Your task to perform on an android device: When is my next meeting? Image 0: 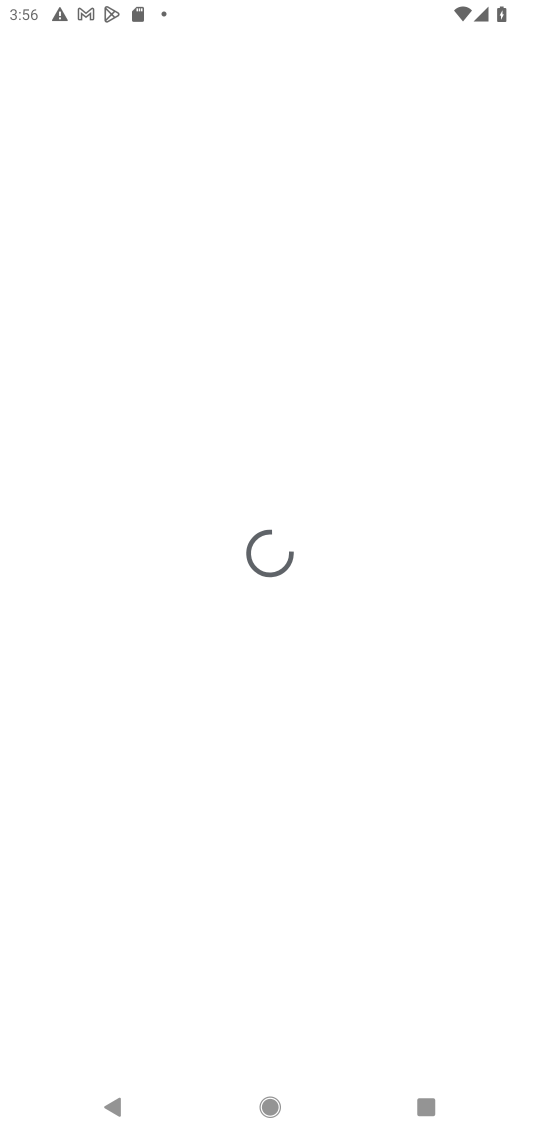
Step 0: press home button
Your task to perform on an android device: When is my next meeting? Image 1: 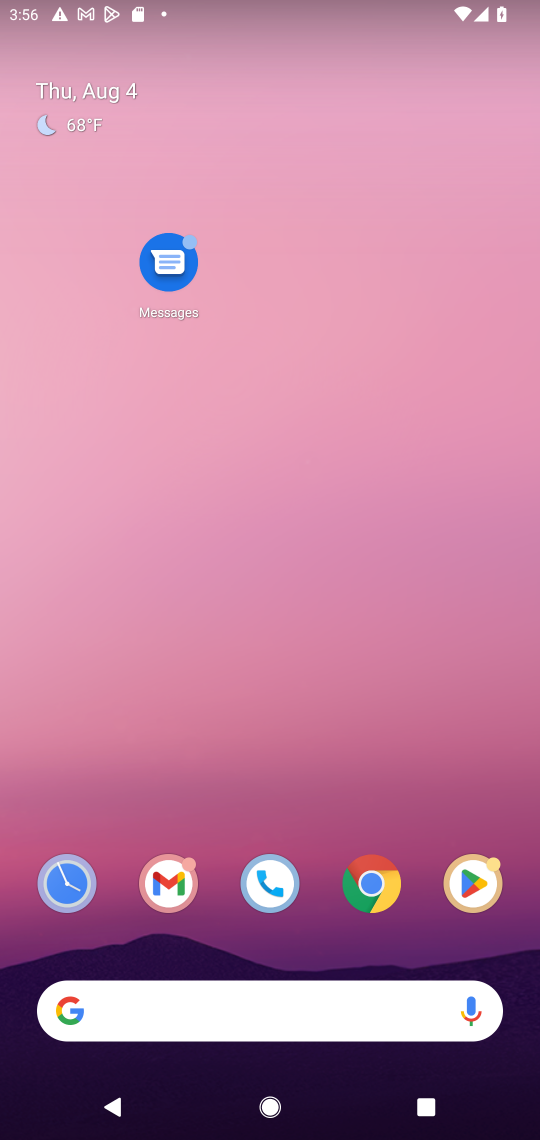
Step 1: drag from (310, 955) to (310, 163)
Your task to perform on an android device: When is my next meeting? Image 2: 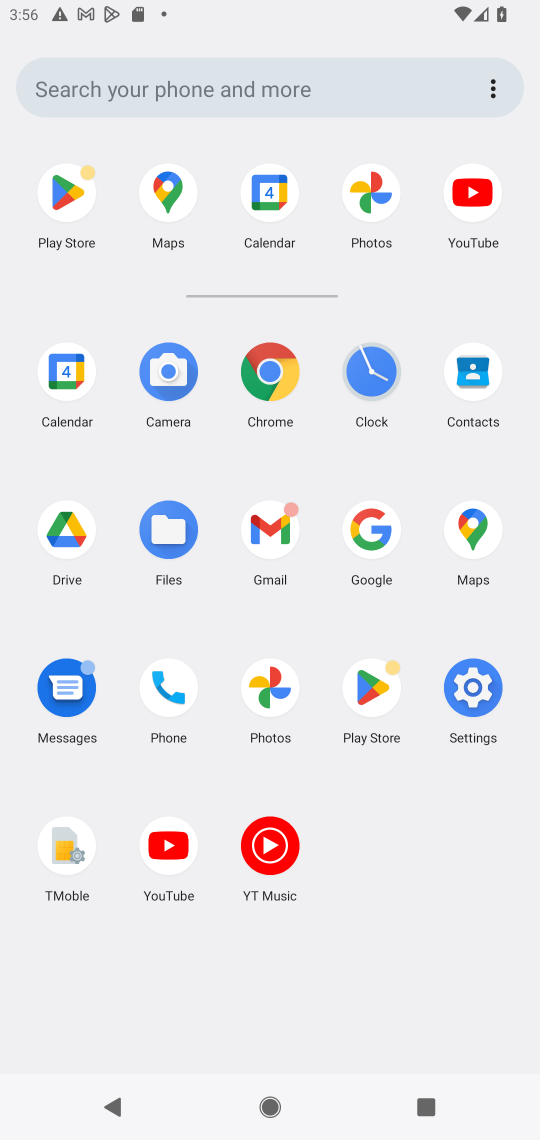
Step 2: click (63, 372)
Your task to perform on an android device: When is my next meeting? Image 3: 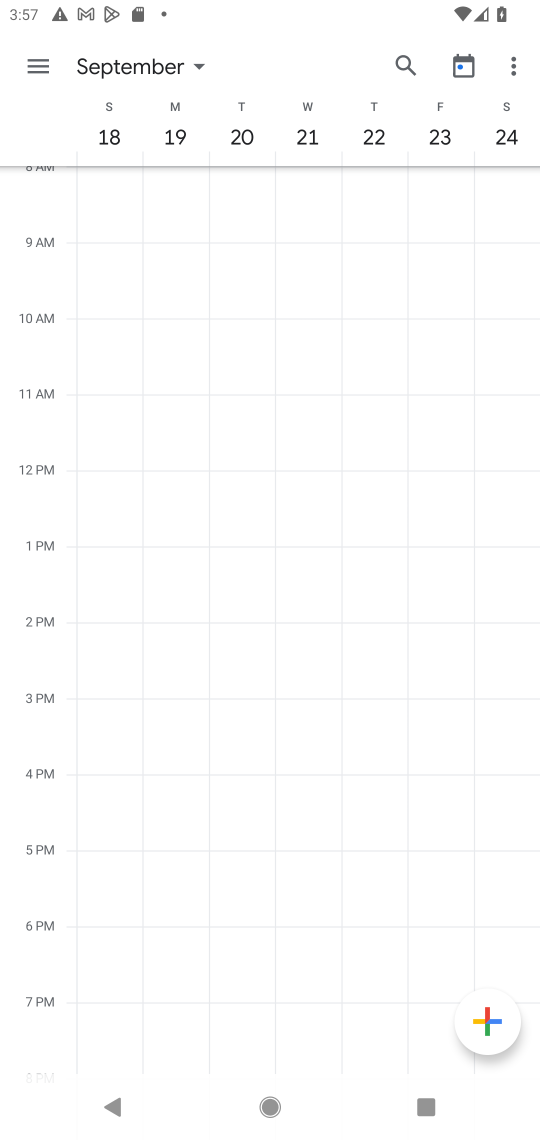
Step 3: click (194, 64)
Your task to perform on an android device: When is my next meeting? Image 4: 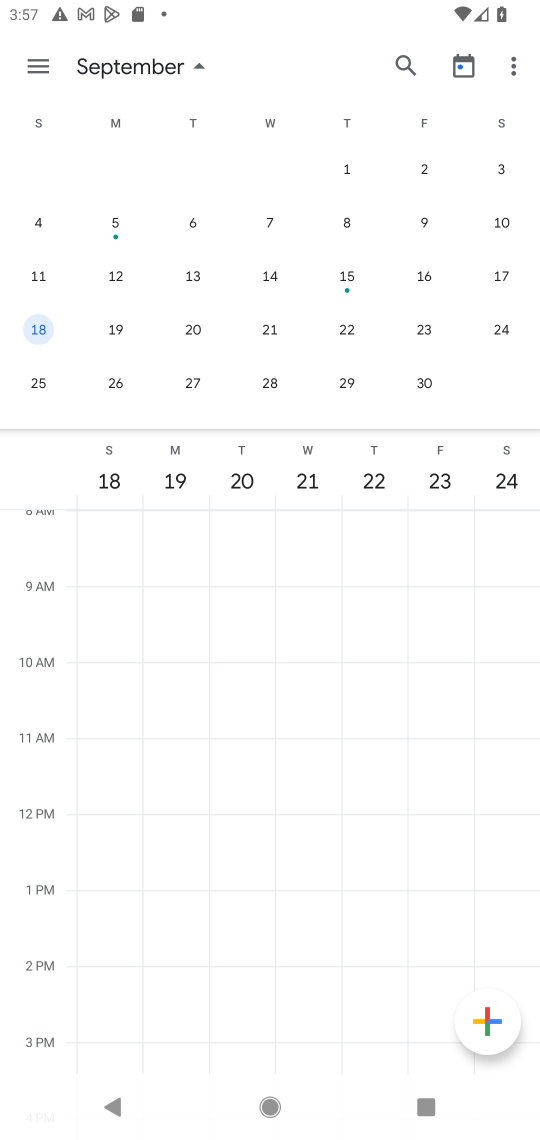
Step 4: drag from (218, 270) to (398, 273)
Your task to perform on an android device: When is my next meeting? Image 5: 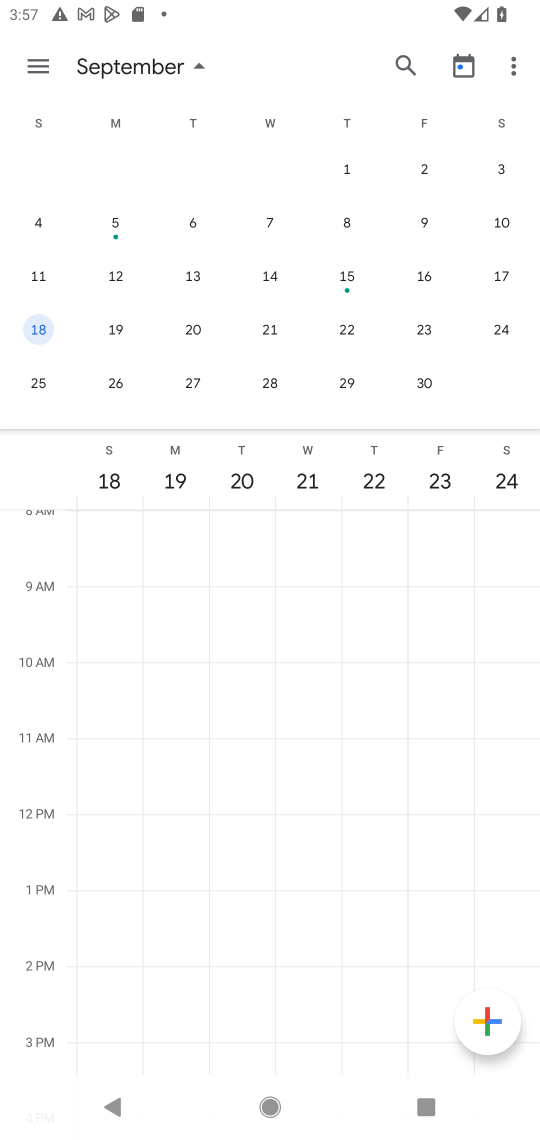
Step 5: drag from (119, 278) to (402, 287)
Your task to perform on an android device: When is my next meeting? Image 6: 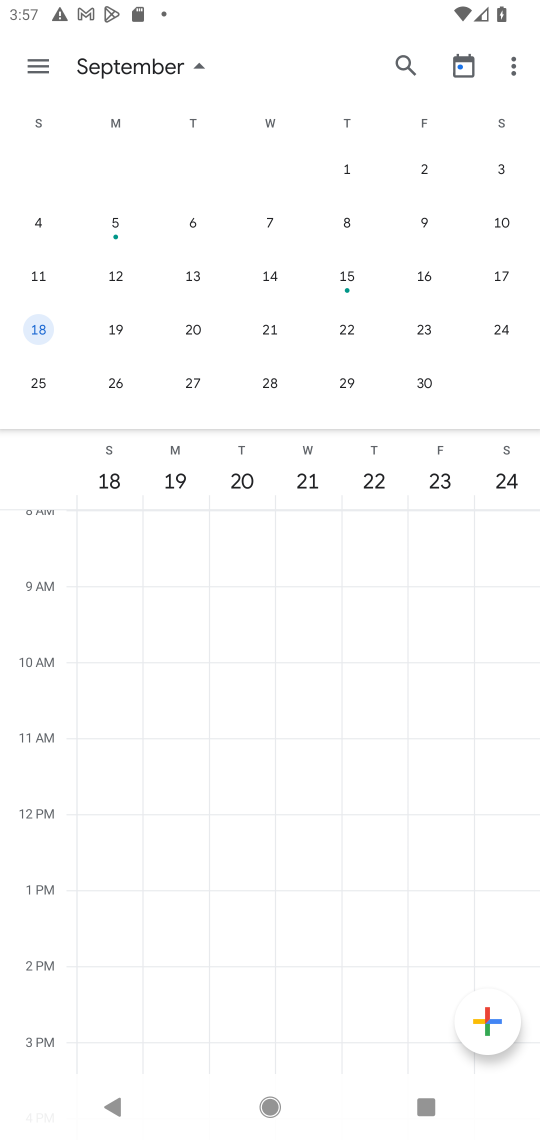
Step 6: drag from (35, 229) to (424, 252)
Your task to perform on an android device: When is my next meeting? Image 7: 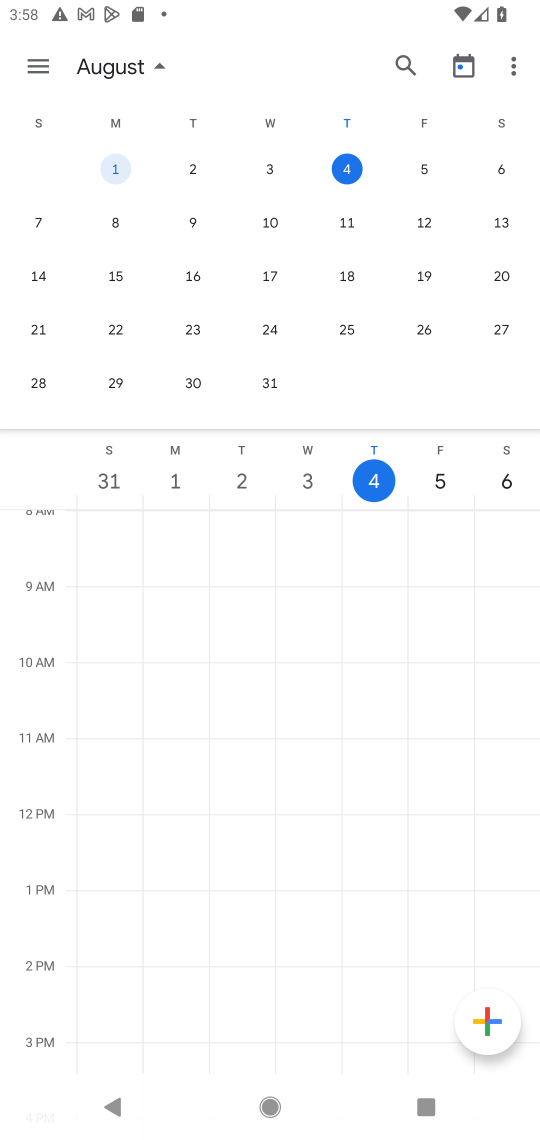
Step 7: click (425, 165)
Your task to perform on an android device: When is my next meeting? Image 8: 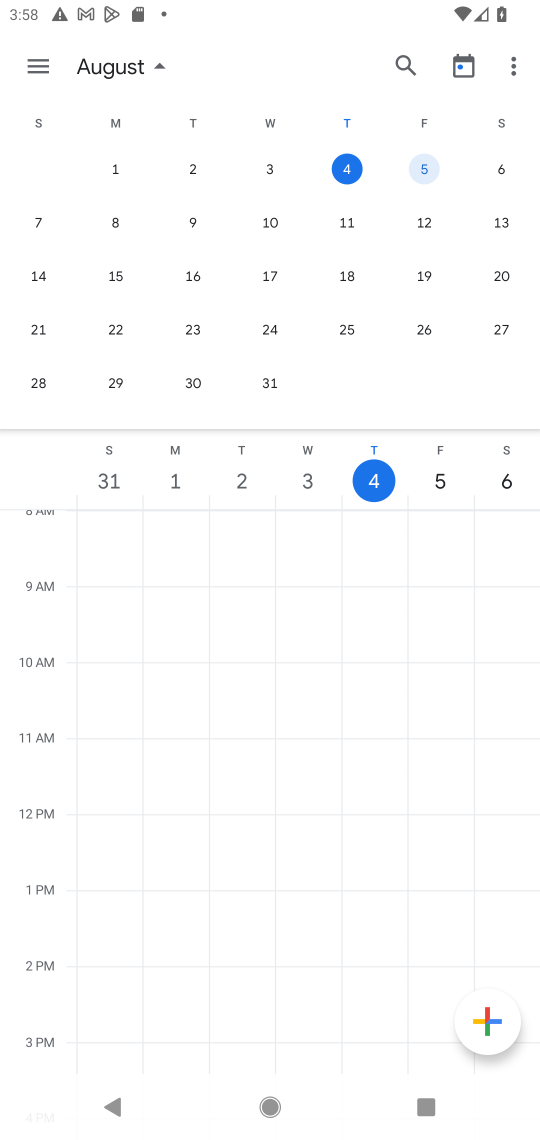
Step 8: click (425, 165)
Your task to perform on an android device: When is my next meeting? Image 9: 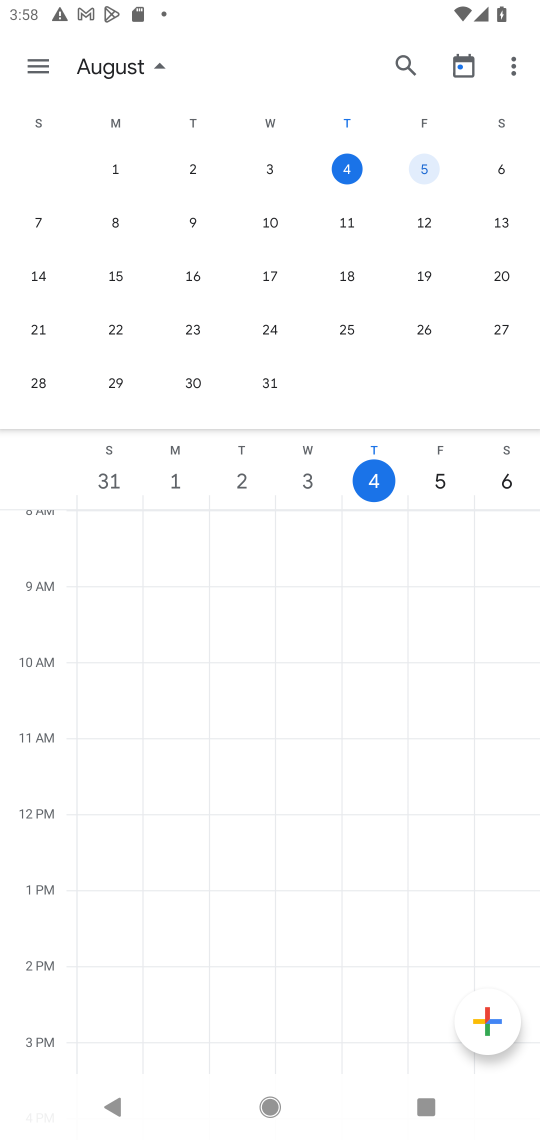
Step 9: click (425, 165)
Your task to perform on an android device: When is my next meeting? Image 10: 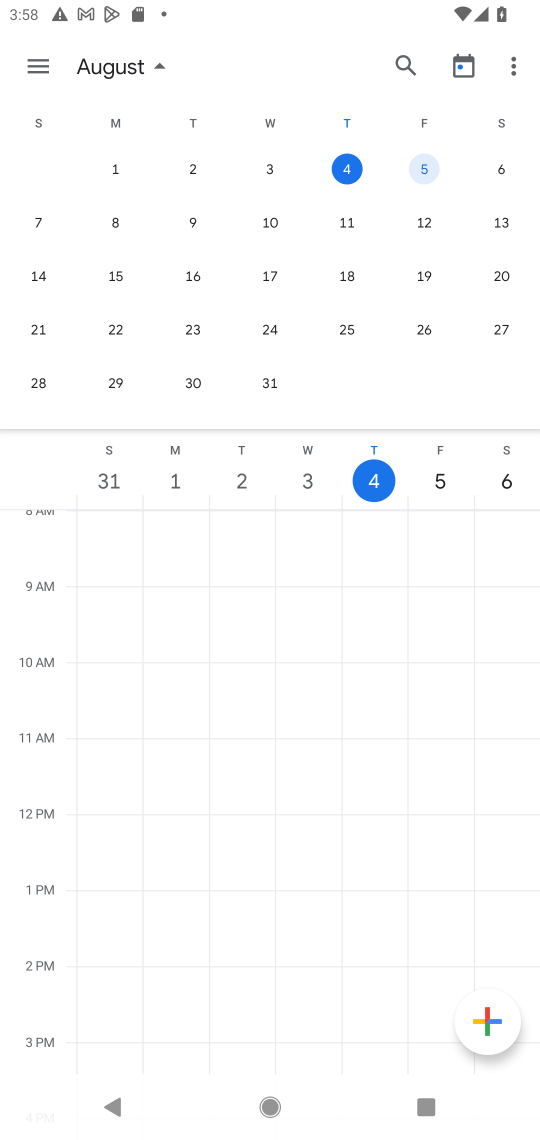
Step 10: click (426, 169)
Your task to perform on an android device: When is my next meeting? Image 11: 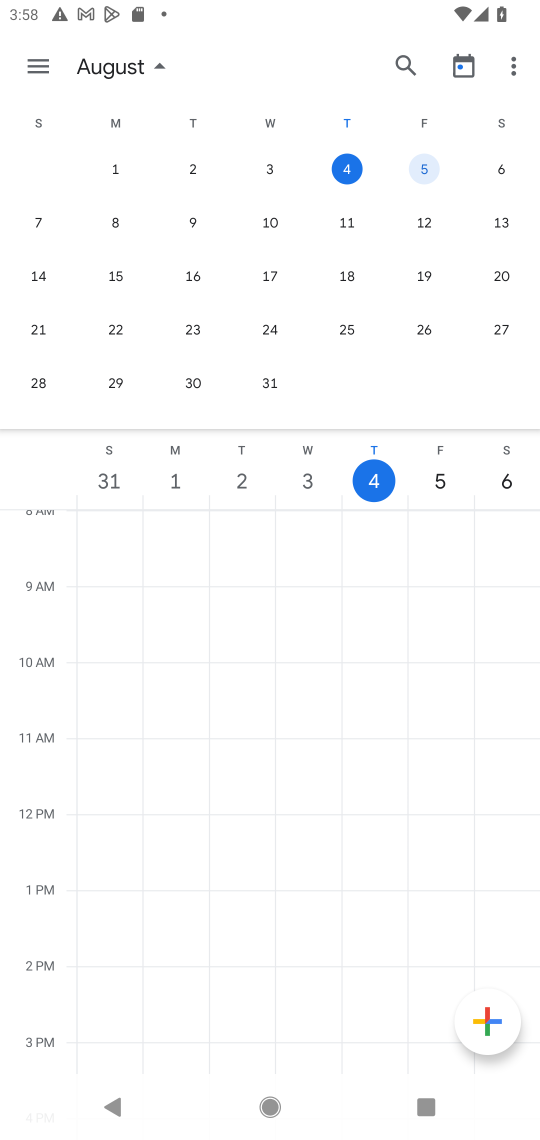
Step 11: click (437, 471)
Your task to perform on an android device: When is my next meeting? Image 12: 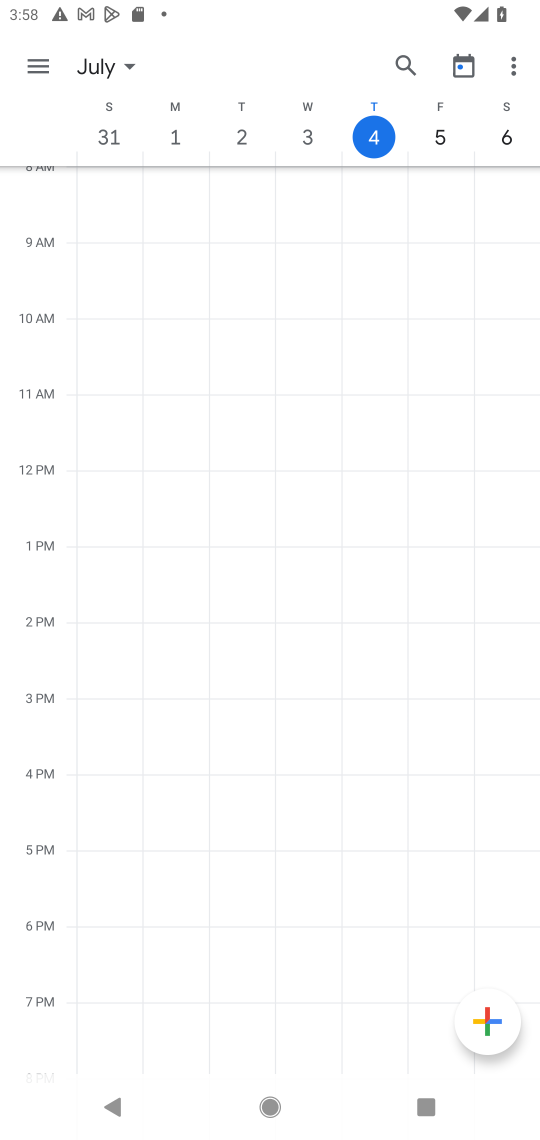
Step 12: task complete